Your task to perform on an android device: Find coffee shops on Maps Image 0: 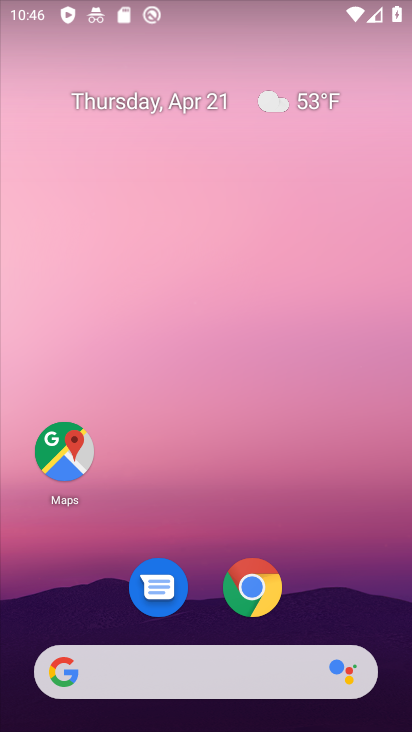
Step 0: click (58, 453)
Your task to perform on an android device: Find coffee shops on Maps Image 1: 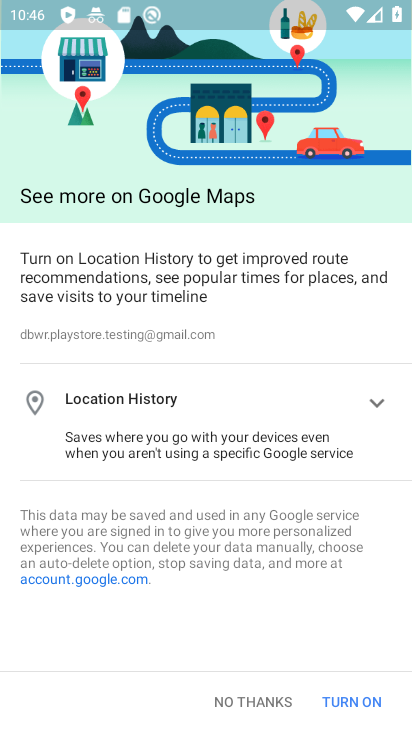
Step 1: click (341, 691)
Your task to perform on an android device: Find coffee shops on Maps Image 2: 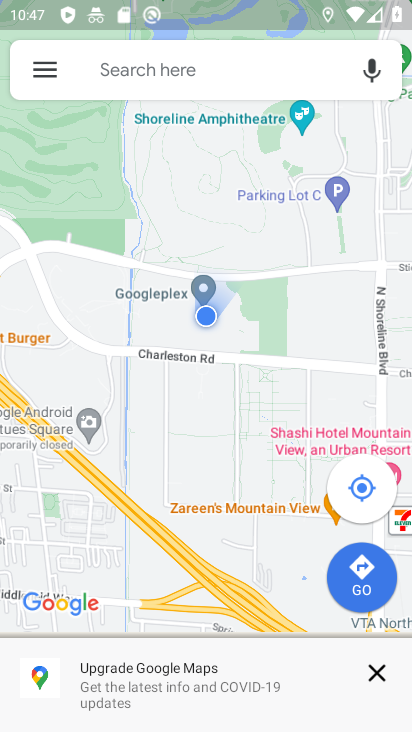
Step 2: click (142, 63)
Your task to perform on an android device: Find coffee shops on Maps Image 3: 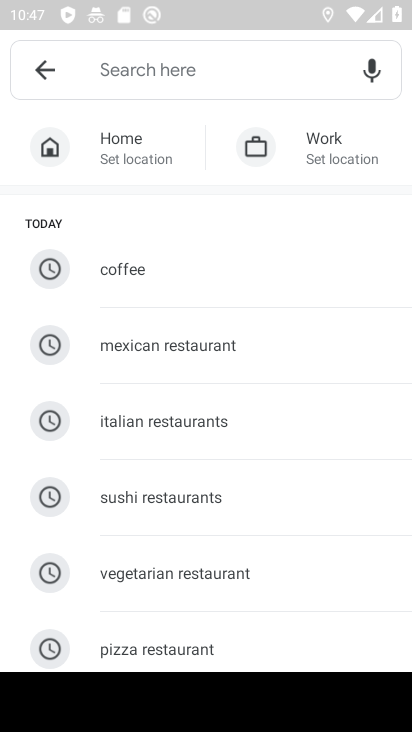
Step 3: click (143, 270)
Your task to perform on an android device: Find coffee shops on Maps Image 4: 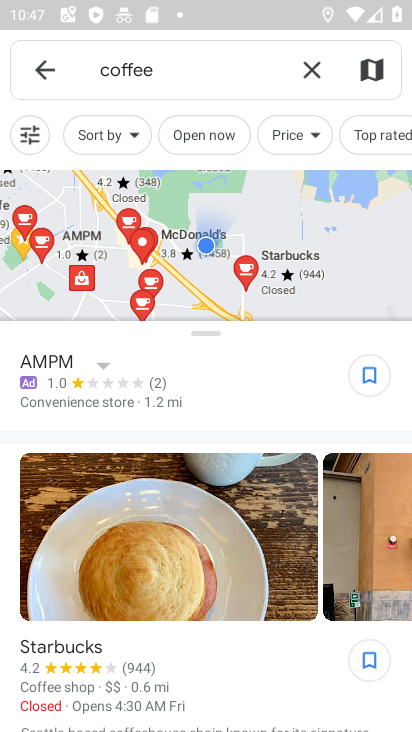
Step 4: task complete